Your task to perform on an android device: Play the last video I watched on Youtube Image 0: 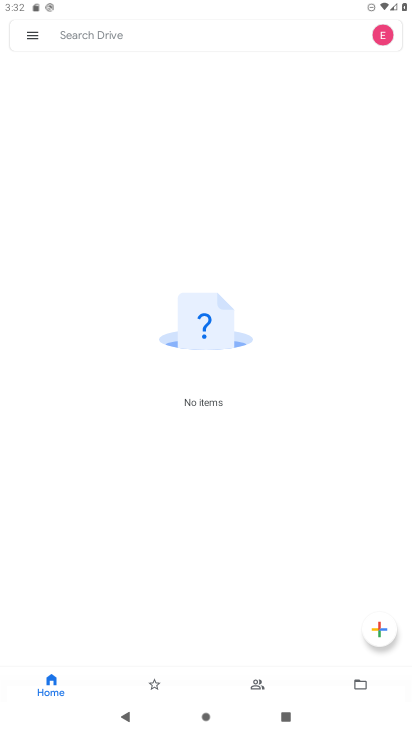
Step 0: press home button
Your task to perform on an android device: Play the last video I watched on Youtube Image 1: 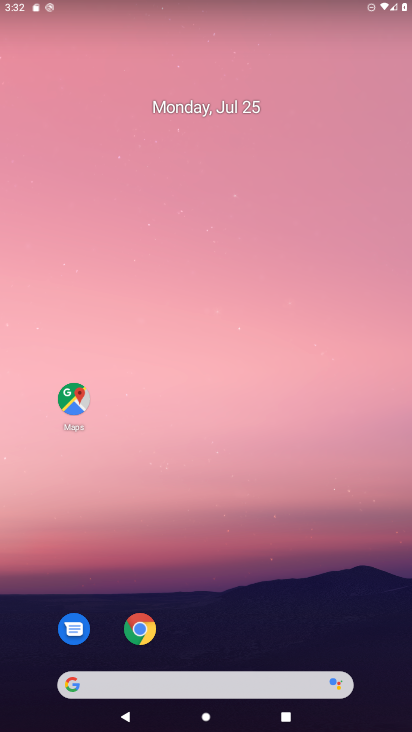
Step 1: click (332, 603)
Your task to perform on an android device: Play the last video I watched on Youtube Image 2: 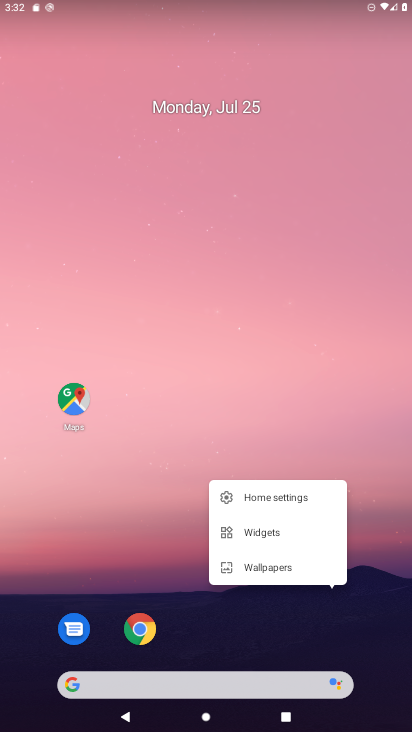
Step 2: click (332, 603)
Your task to perform on an android device: Play the last video I watched on Youtube Image 3: 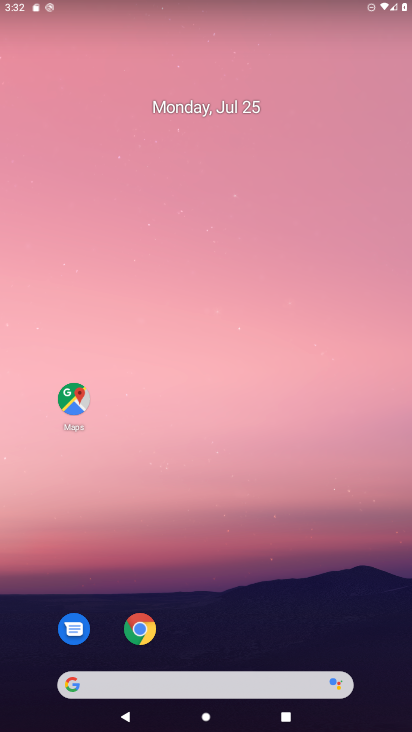
Step 3: drag from (330, 321) to (330, 267)
Your task to perform on an android device: Play the last video I watched on Youtube Image 4: 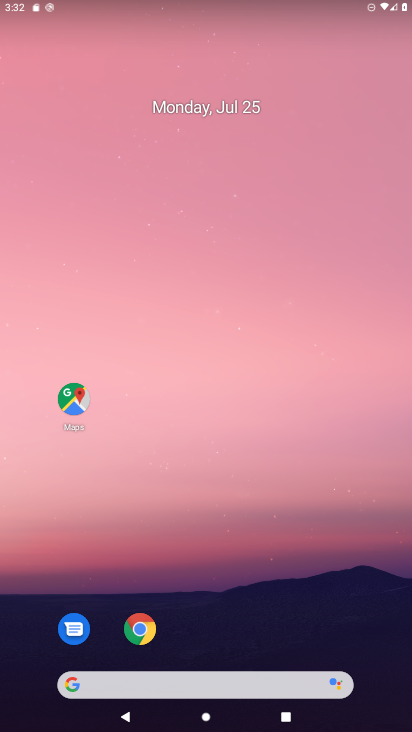
Step 4: drag from (357, 665) to (357, 282)
Your task to perform on an android device: Play the last video I watched on Youtube Image 5: 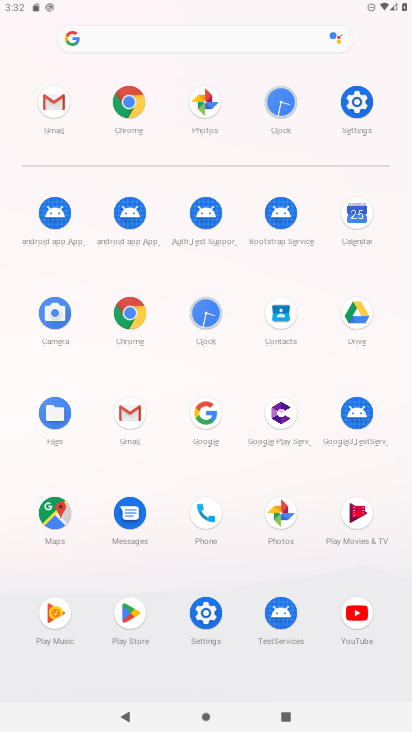
Step 5: click (368, 615)
Your task to perform on an android device: Play the last video I watched on Youtube Image 6: 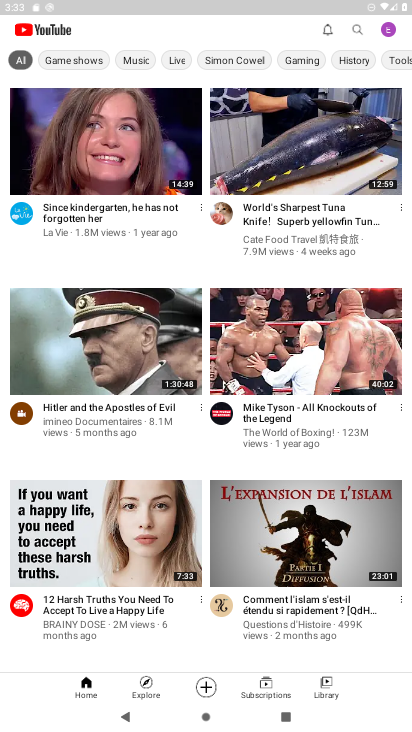
Step 6: click (321, 694)
Your task to perform on an android device: Play the last video I watched on Youtube Image 7: 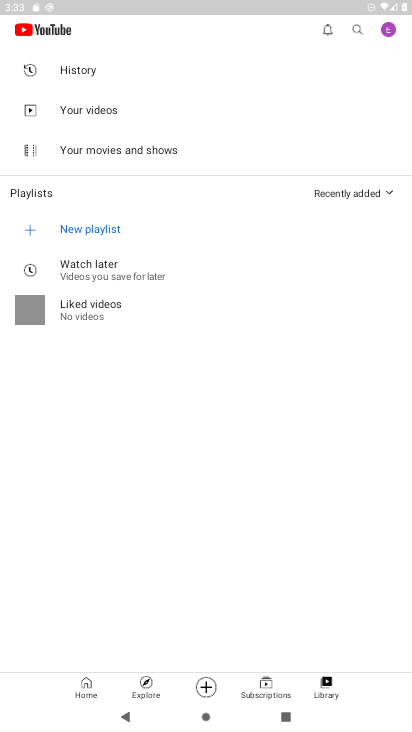
Step 7: click (107, 76)
Your task to perform on an android device: Play the last video I watched on Youtube Image 8: 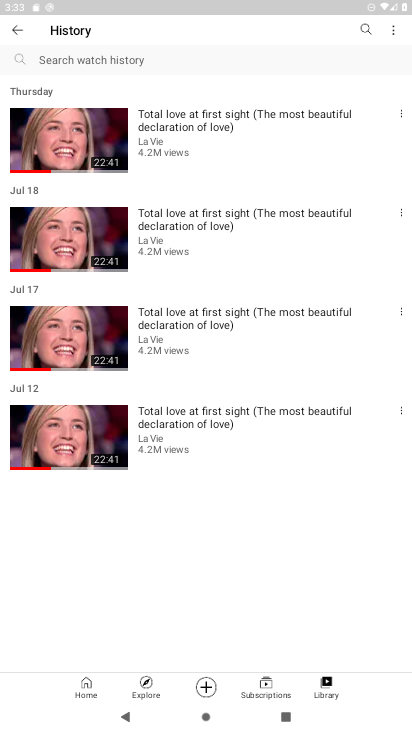
Step 8: click (100, 130)
Your task to perform on an android device: Play the last video I watched on Youtube Image 9: 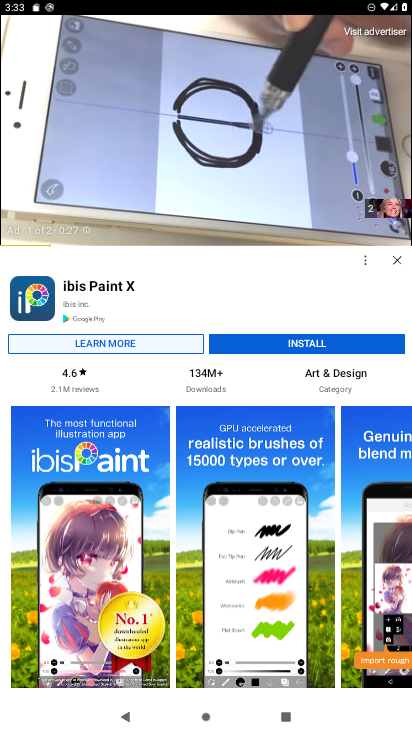
Step 9: task complete